Your task to perform on an android device: check android version Image 0: 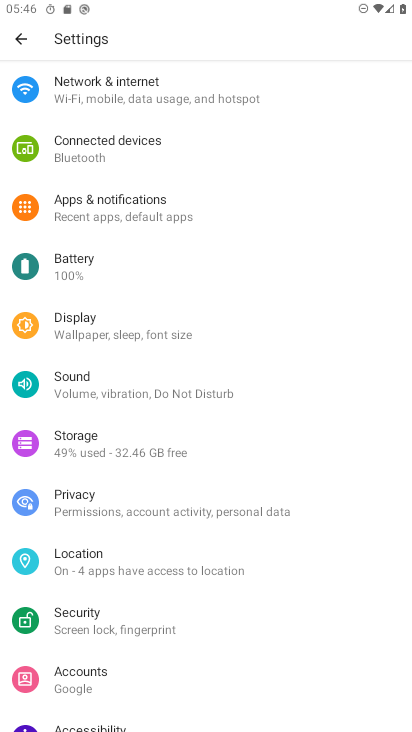
Step 0: drag from (205, 590) to (150, 88)
Your task to perform on an android device: check android version Image 1: 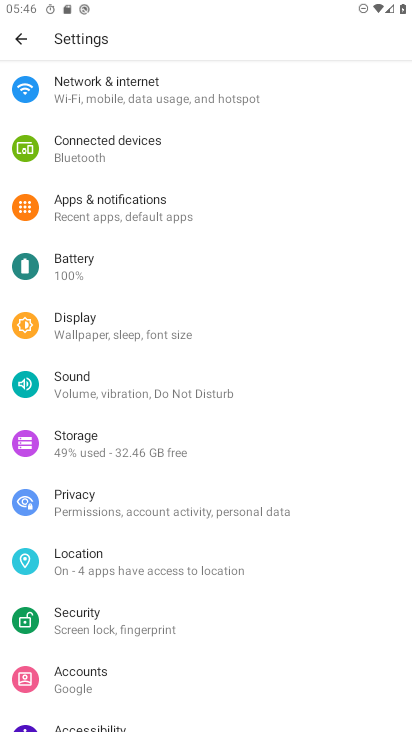
Step 1: drag from (118, 635) to (132, 219)
Your task to perform on an android device: check android version Image 2: 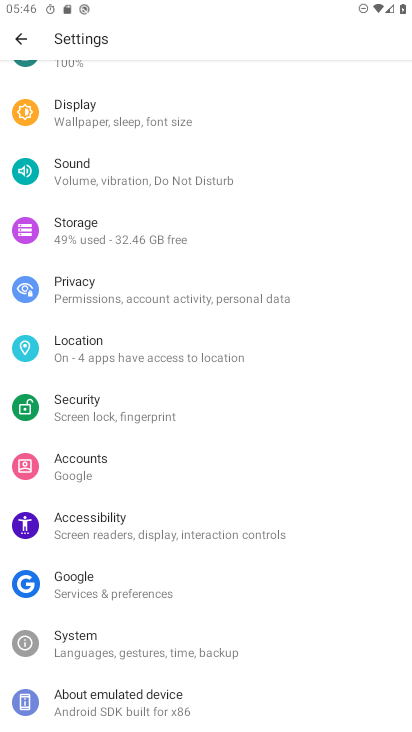
Step 2: click (85, 698)
Your task to perform on an android device: check android version Image 3: 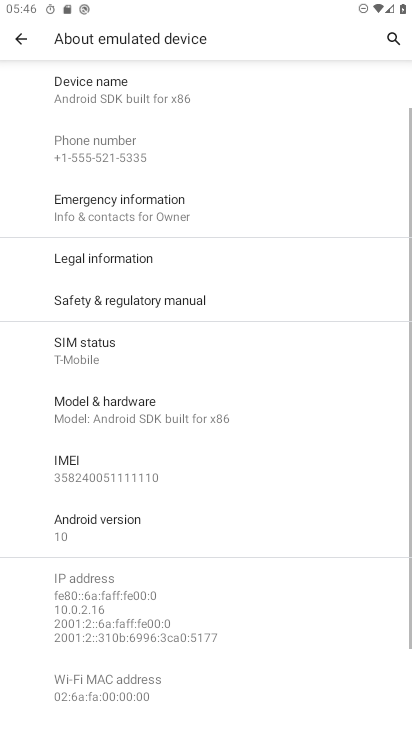
Step 3: task complete